Your task to perform on an android device: Open the Play Movies app and select the watchlist tab. Image 0: 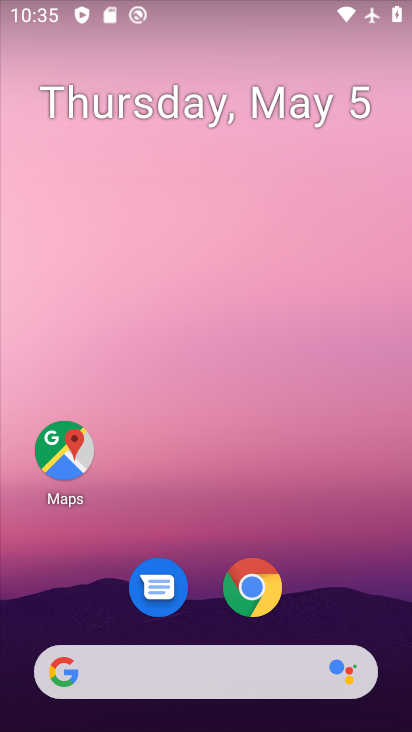
Step 0: drag from (364, 584) to (300, 47)
Your task to perform on an android device: Open the Play Movies app and select the watchlist tab. Image 1: 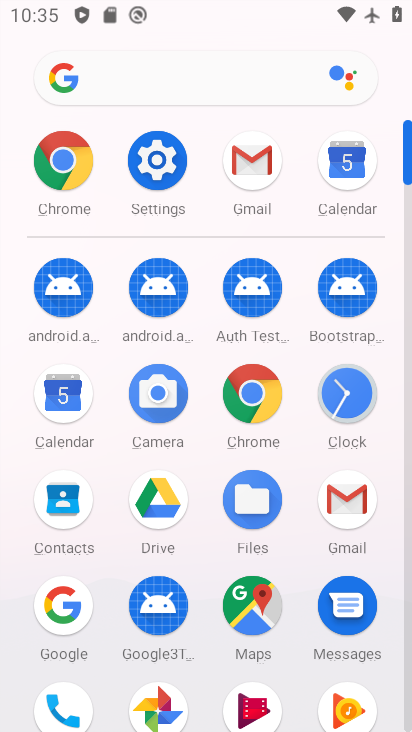
Step 1: drag from (19, 612) to (17, 344)
Your task to perform on an android device: Open the Play Movies app and select the watchlist tab. Image 2: 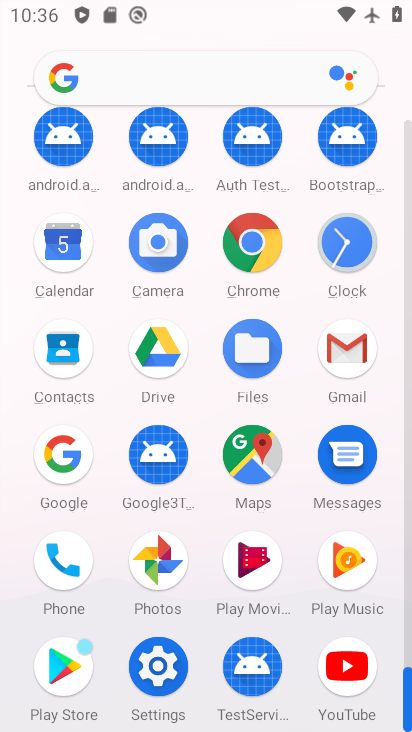
Step 2: drag from (7, 585) to (25, 306)
Your task to perform on an android device: Open the Play Movies app and select the watchlist tab. Image 3: 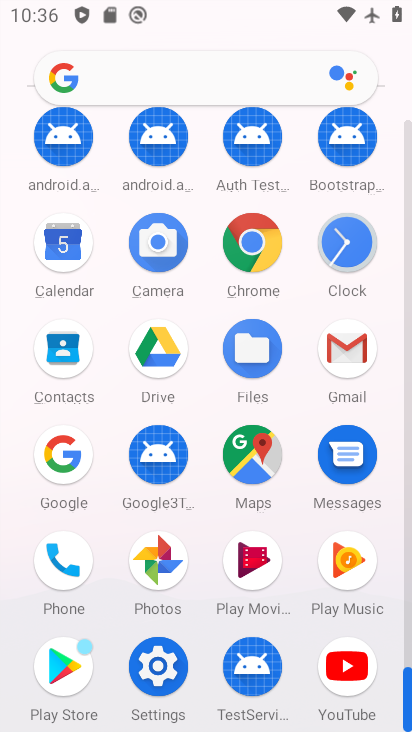
Step 3: click (249, 562)
Your task to perform on an android device: Open the Play Movies app and select the watchlist tab. Image 4: 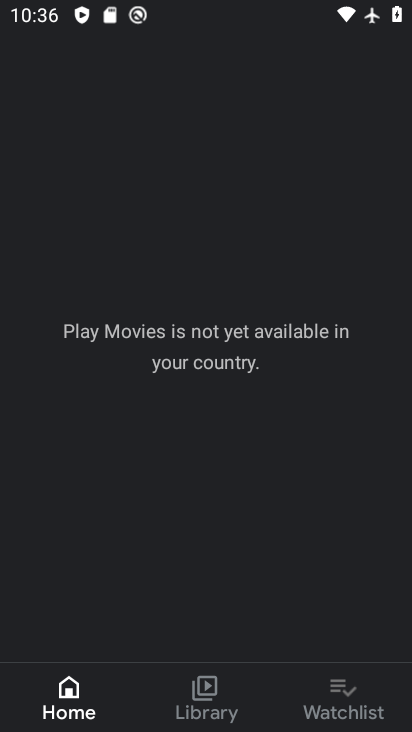
Step 4: click (332, 692)
Your task to perform on an android device: Open the Play Movies app and select the watchlist tab. Image 5: 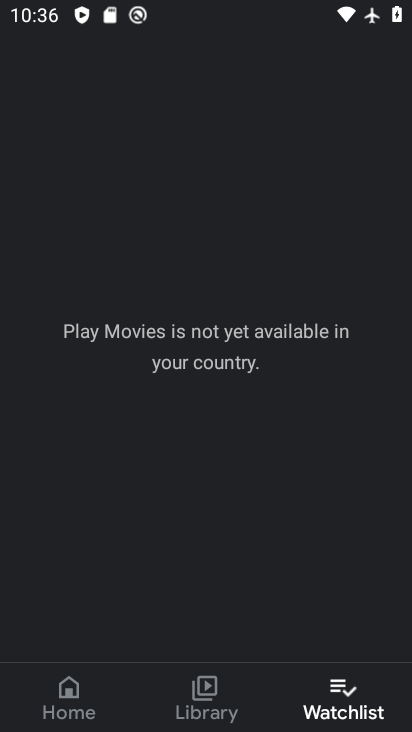
Step 5: task complete